Your task to perform on an android device: find snoozed emails in the gmail app Image 0: 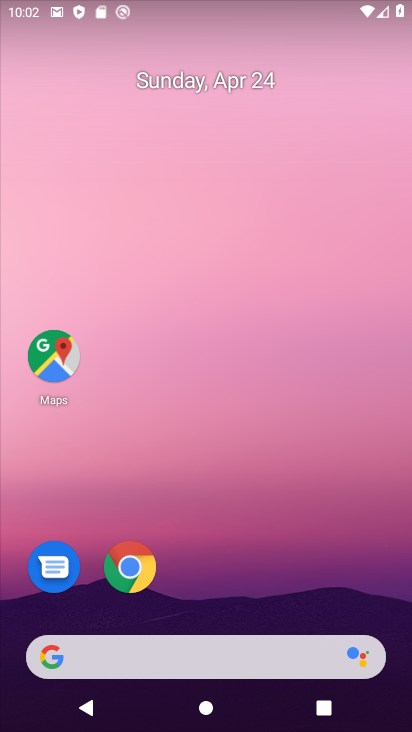
Step 0: drag from (238, 555) to (409, 105)
Your task to perform on an android device: find snoozed emails in the gmail app Image 1: 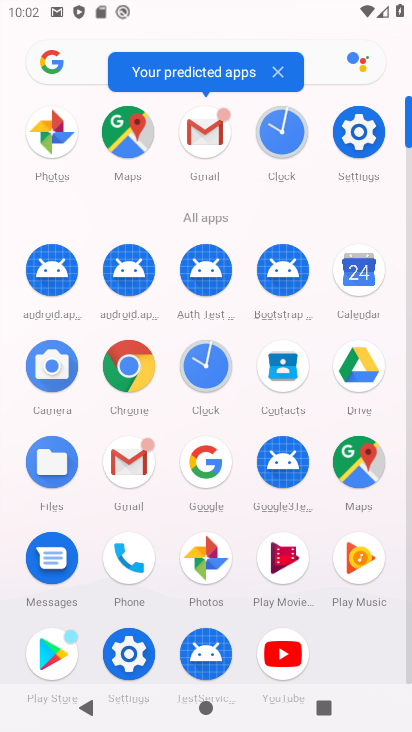
Step 1: click (204, 134)
Your task to perform on an android device: find snoozed emails in the gmail app Image 2: 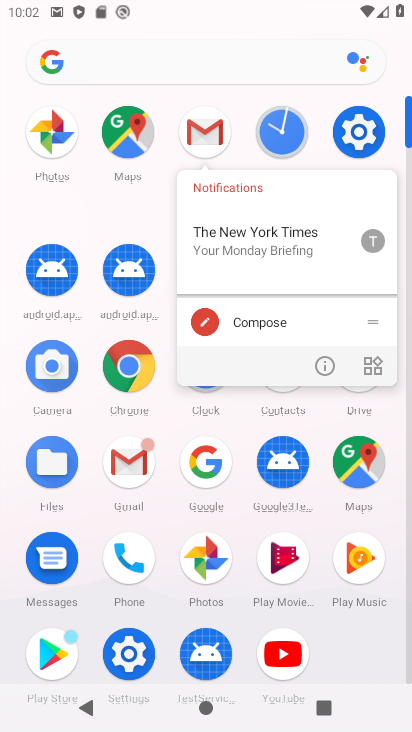
Step 2: click (190, 129)
Your task to perform on an android device: find snoozed emails in the gmail app Image 3: 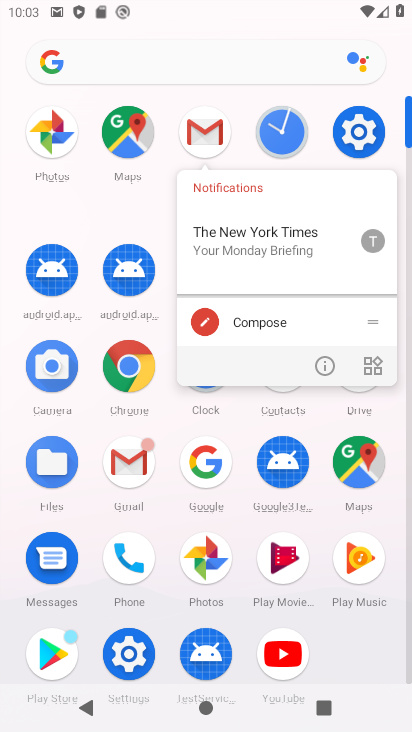
Step 3: click (203, 129)
Your task to perform on an android device: find snoozed emails in the gmail app Image 4: 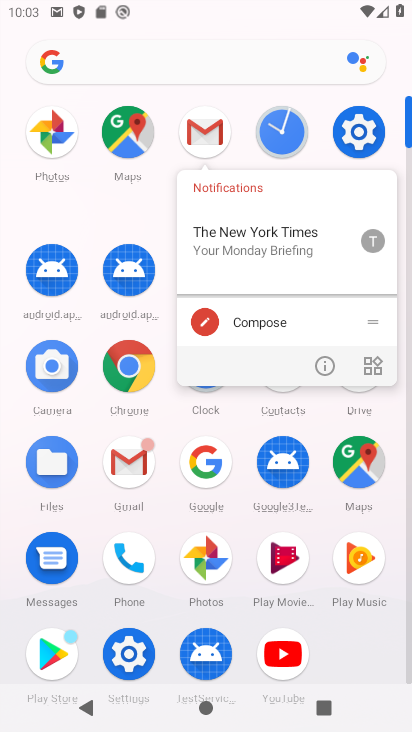
Step 4: click (203, 135)
Your task to perform on an android device: find snoozed emails in the gmail app Image 5: 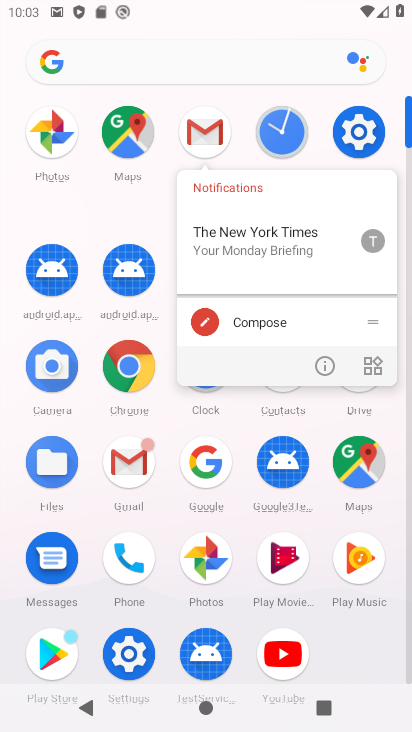
Step 5: click (203, 138)
Your task to perform on an android device: find snoozed emails in the gmail app Image 6: 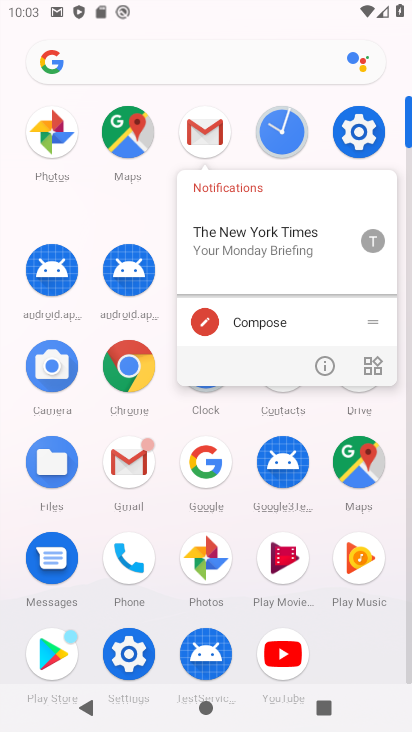
Step 6: click (203, 143)
Your task to perform on an android device: find snoozed emails in the gmail app Image 7: 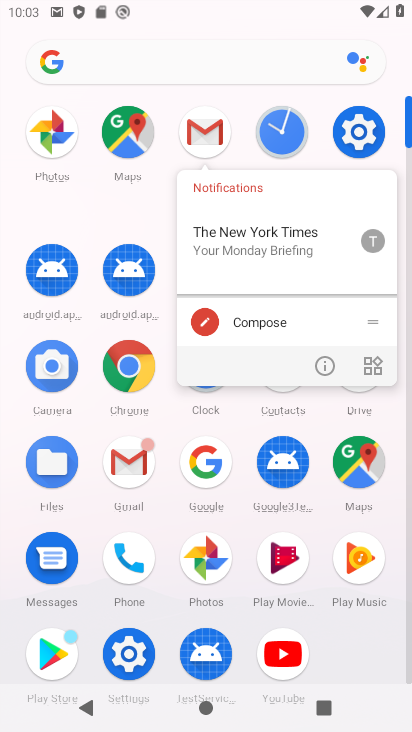
Step 7: click (206, 134)
Your task to perform on an android device: find snoozed emails in the gmail app Image 8: 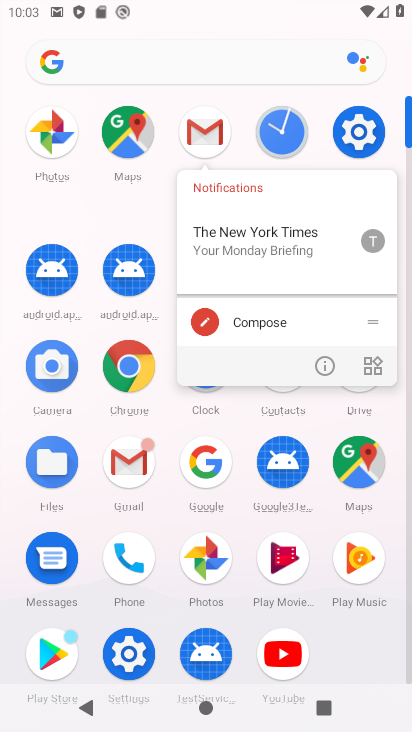
Step 8: click (197, 147)
Your task to perform on an android device: find snoozed emails in the gmail app Image 9: 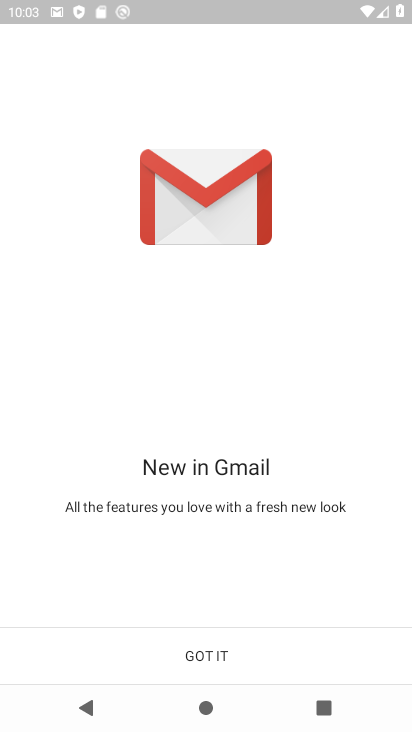
Step 9: click (215, 657)
Your task to perform on an android device: find snoozed emails in the gmail app Image 10: 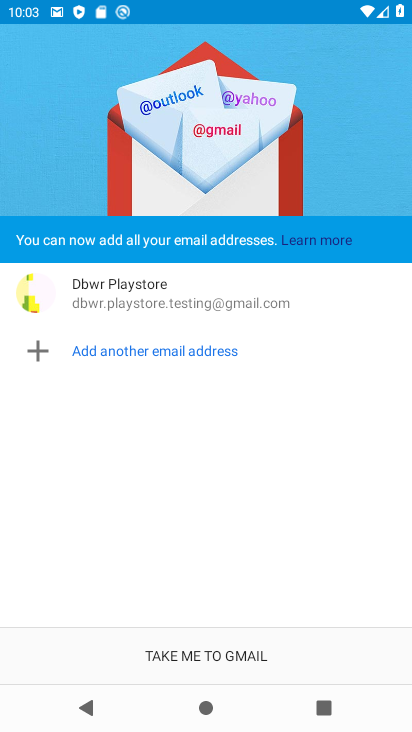
Step 10: click (213, 655)
Your task to perform on an android device: find snoozed emails in the gmail app Image 11: 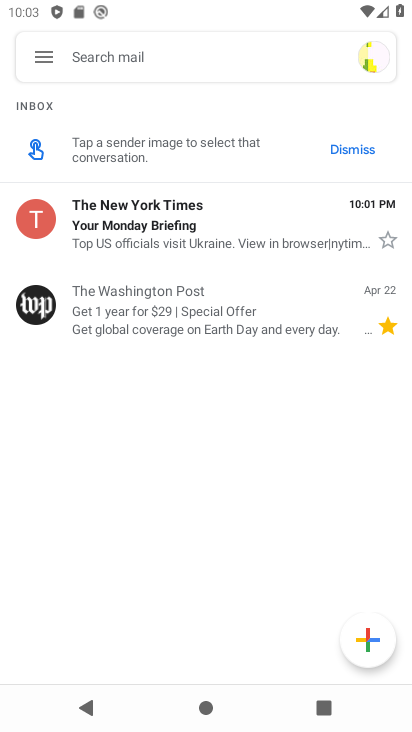
Step 11: click (39, 55)
Your task to perform on an android device: find snoozed emails in the gmail app Image 12: 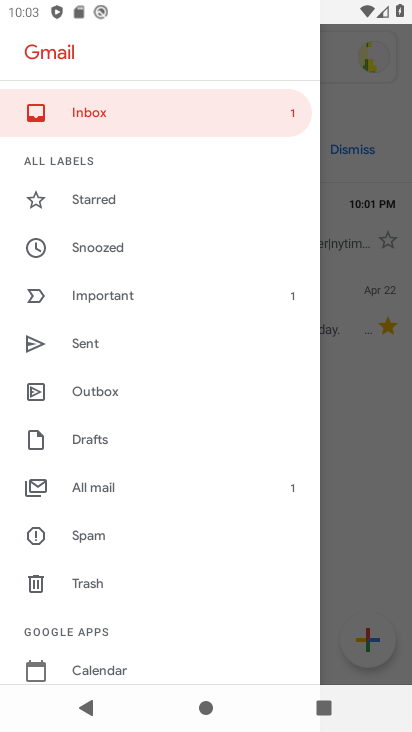
Step 12: click (108, 245)
Your task to perform on an android device: find snoozed emails in the gmail app Image 13: 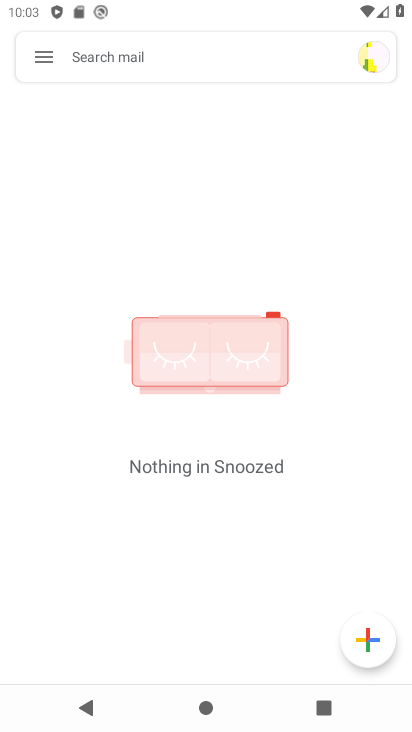
Step 13: task complete